Your task to perform on an android device: Open Yahoo.com Image 0: 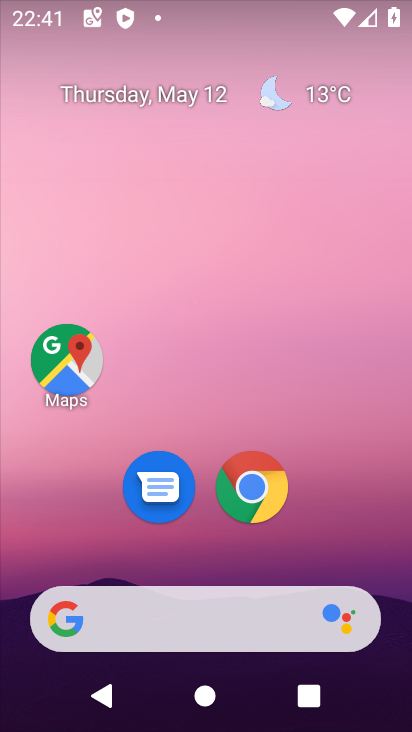
Step 0: click (253, 486)
Your task to perform on an android device: Open Yahoo.com Image 1: 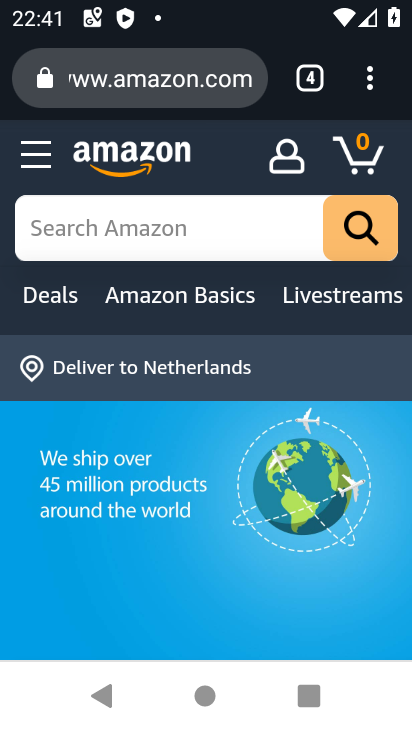
Step 1: click (365, 88)
Your task to perform on an android device: Open Yahoo.com Image 2: 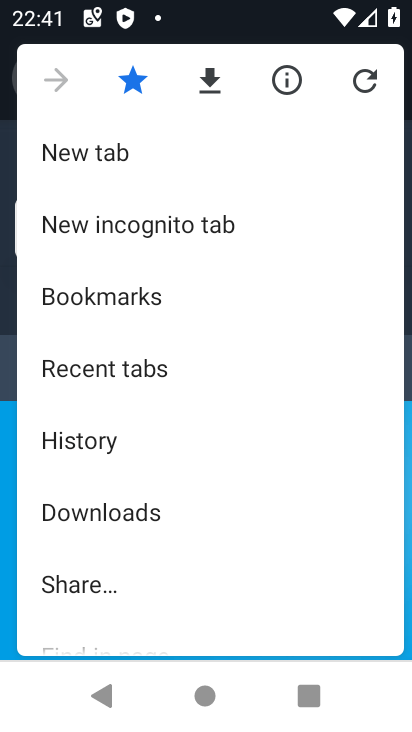
Step 2: click (120, 150)
Your task to perform on an android device: Open Yahoo.com Image 3: 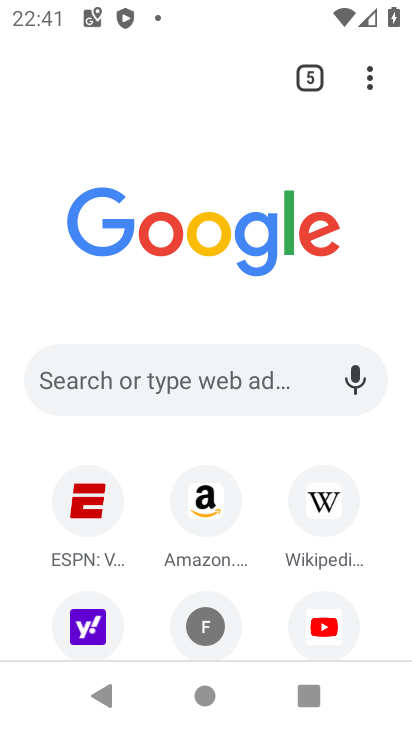
Step 3: click (90, 613)
Your task to perform on an android device: Open Yahoo.com Image 4: 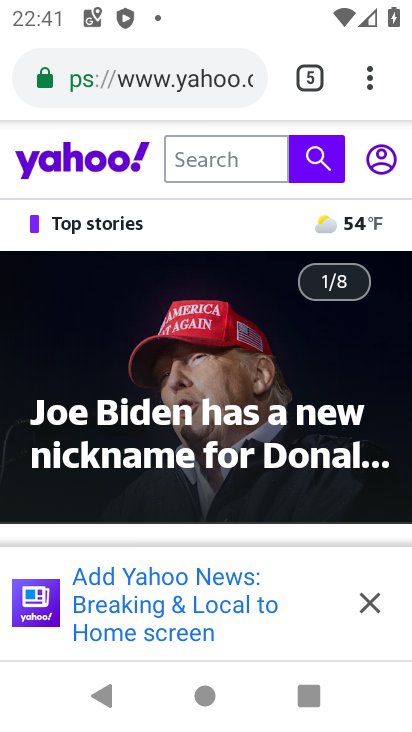
Step 4: task complete